Your task to perform on an android device: toggle notifications settings in the gmail app Image 0: 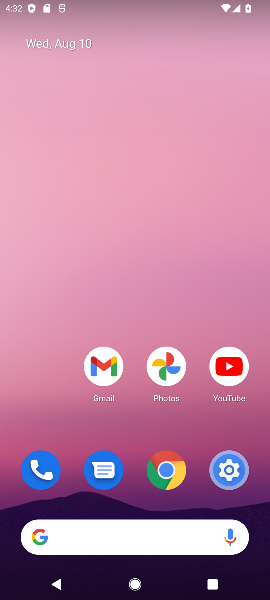
Step 0: drag from (40, 417) to (148, 41)
Your task to perform on an android device: toggle notifications settings in the gmail app Image 1: 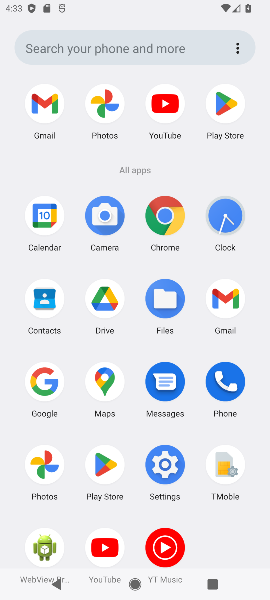
Step 1: click (32, 134)
Your task to perform on an android device: toggle notifications settings in the gmail app Image 2: 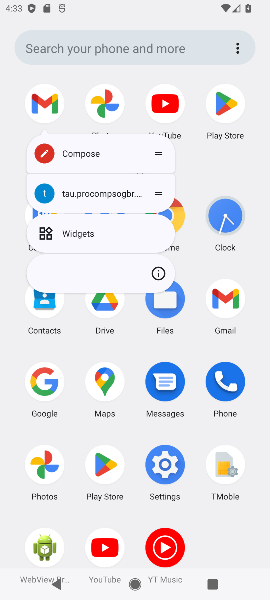
Step 2: click (156, 276)
Your task to perform on an android device: toggle notifications settings in the gmail app Image 3: 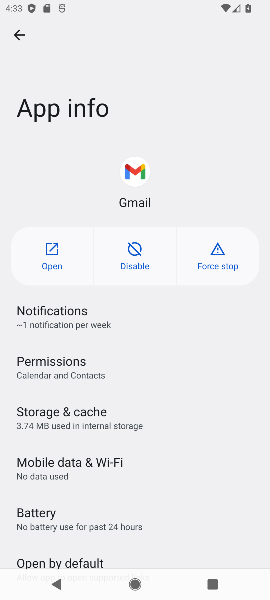
Step 3: click (62, 323)
Your task to perform on an android device: toggle notifications settings in the gmail app Image 4: 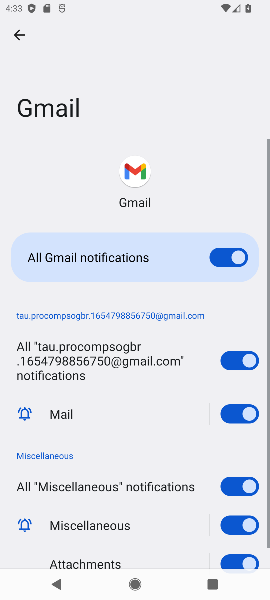
Step 4: click (176, 258)
Your task to perform on an android device: toggle notifications settings in the gmail app Image 5: 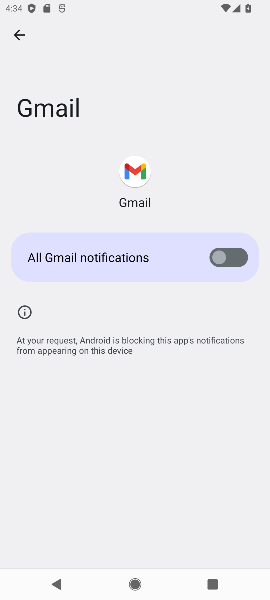
Step 5: task complete